Your task to perform on an android device: Turn on the flashlight Image 0: 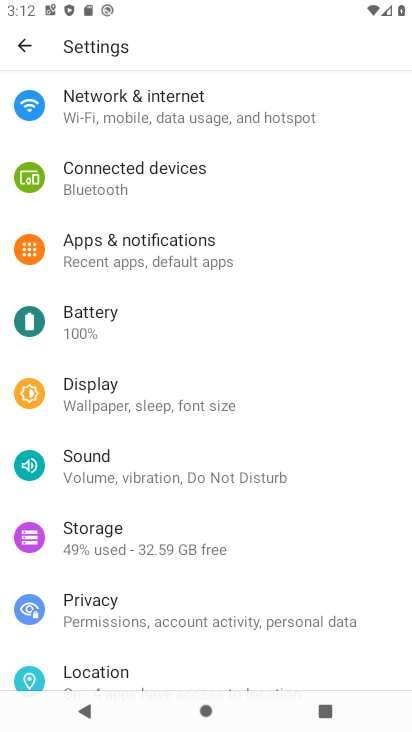
Step 0: press home button
Your task to perform on an android device: Turn on the flashlight Image 1: 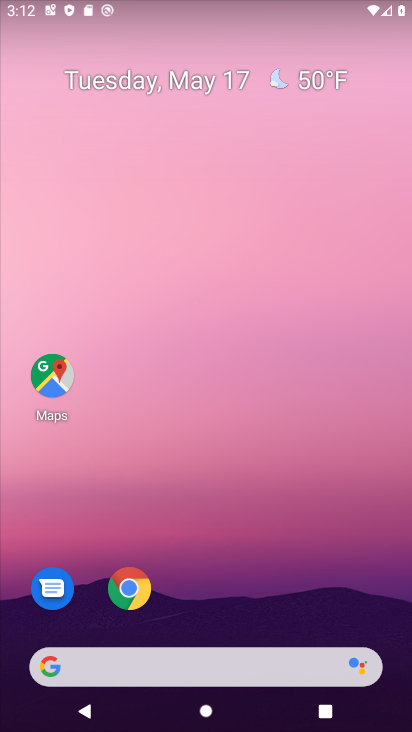
Step 1: task complete